Your task to perform on an android device: install app "Adobe Express: Graphic Design" Image 0: 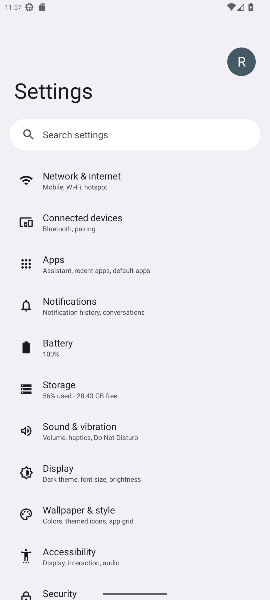
Step 0: press home button
Your task to perform on an android device: install app "Adobe Express: Graphic Design" Image 1: 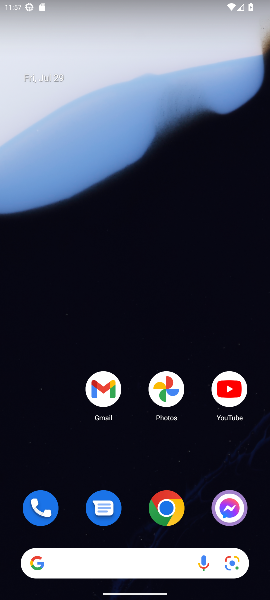
Step 1: drag from (150, 580) to (146, 180)
Your task to perform on an android device: install app "Adobe Express: Graphic Design" Image 2: 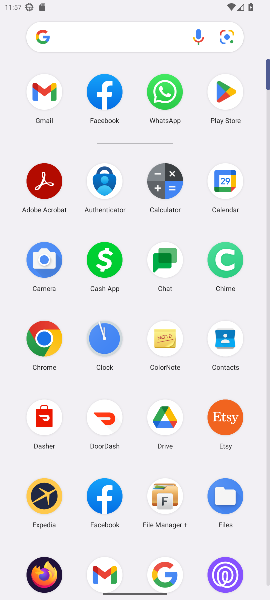
Step 2: click (225, 100)
Your task to perform on an android device: install app "Adobe Express: Graphic Design" Image 3: 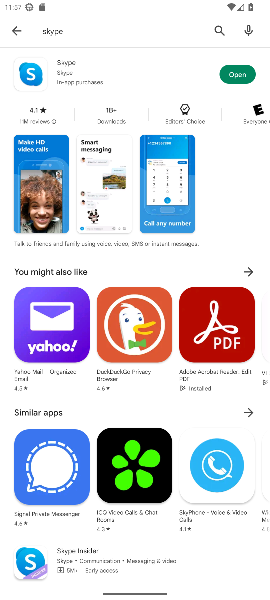
Step 3: click (222, 31)
Your task to perform on an android device: install app "Adobe Express: Graphic Design" Image 4: 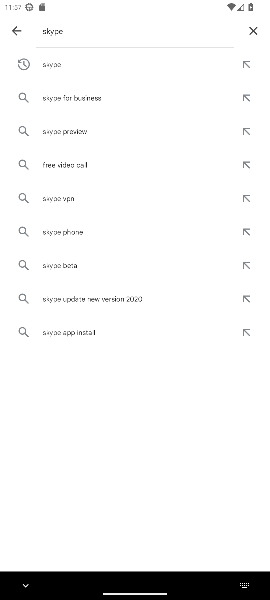
Step 4: click (250, 26)
Your task to perform on an android device: install app "Adobe Express: Graphic Design" Image 5: 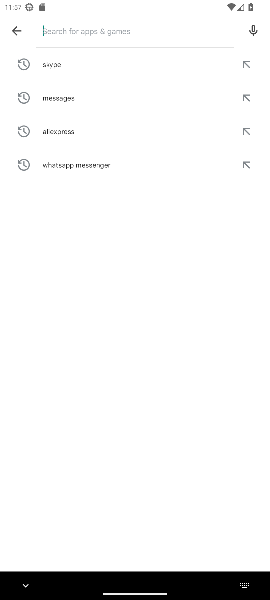
Step 5: click (149, 38)
Your task to perform on an android device: install app "Adobe Express: Graphic Design" Image 6: 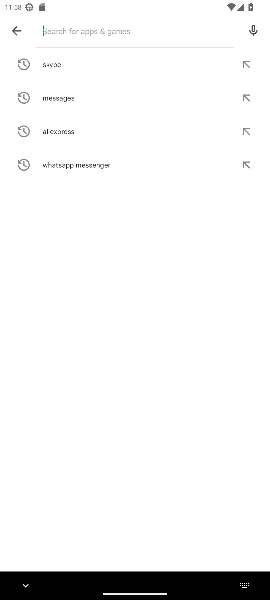
Step 6: type "adobe express: graphic design"
Your task to perform on an android device: install app "Adobe Express: Graphic Design" Image 7: 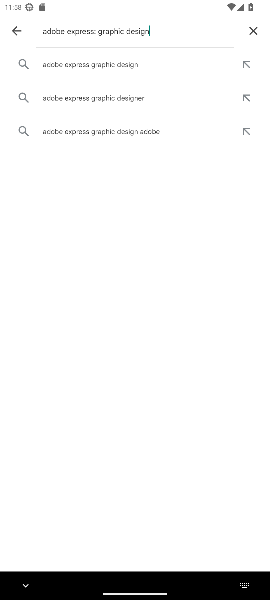
Step 7: click (60, 63)
Your task to perform on an android device: install app "Adobe Express: Graphic Design" Image 8: 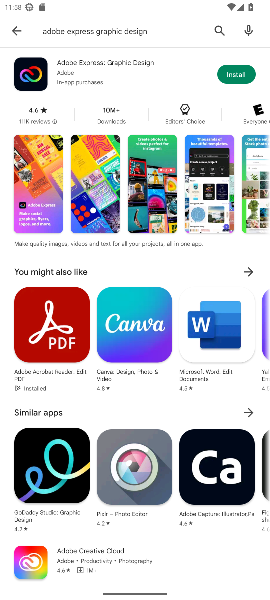
Step 8: click (246, 76)
Your task to perform on an android device: install app "Adobe Express: Graphic Design" Image 9: 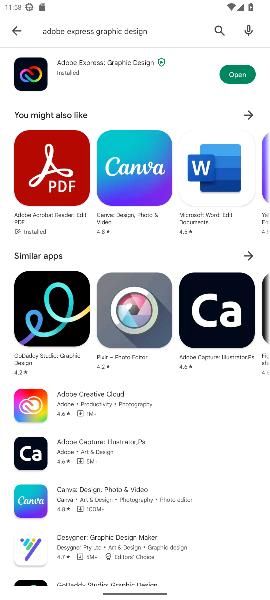
Step 9: task complete